Your task to perform on an android device: Open Chrome and go to settings Image 0: 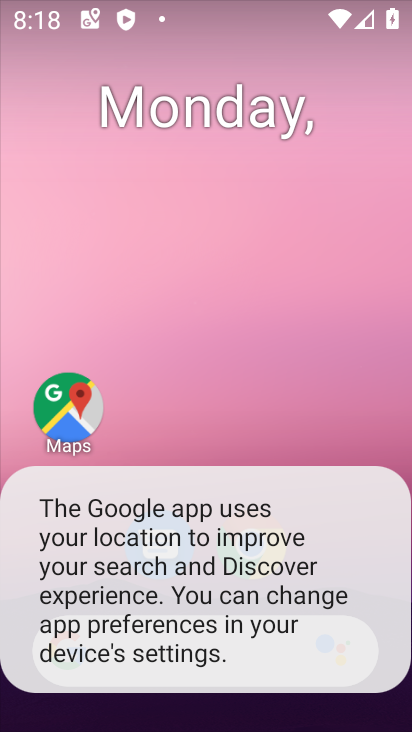
Step 0: click (318, 310)
Your task to perform on an android device: Open Chrome and go to settings Image 1: 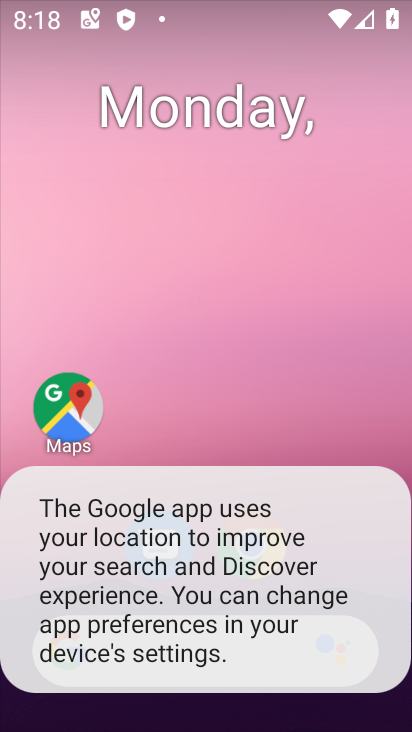
Step 1: drag from (220, 383) to (298, 75)
Your task to perform on an android device: Open Chrome and go to settings Image 2: 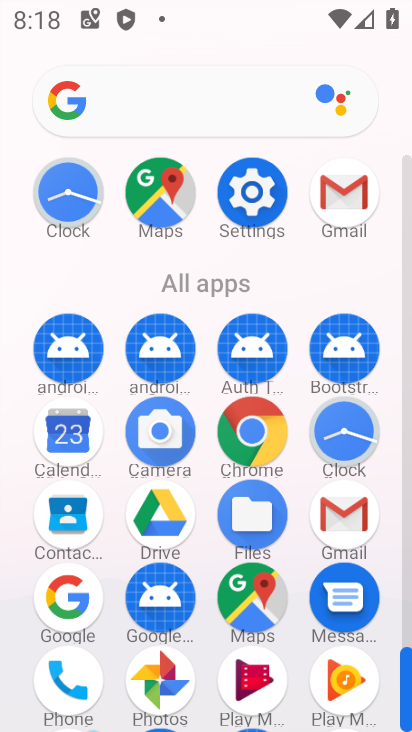
Step 2: click (252, 439)
Your task to perform on an android device: Open Chrome and go to settings Image 3: 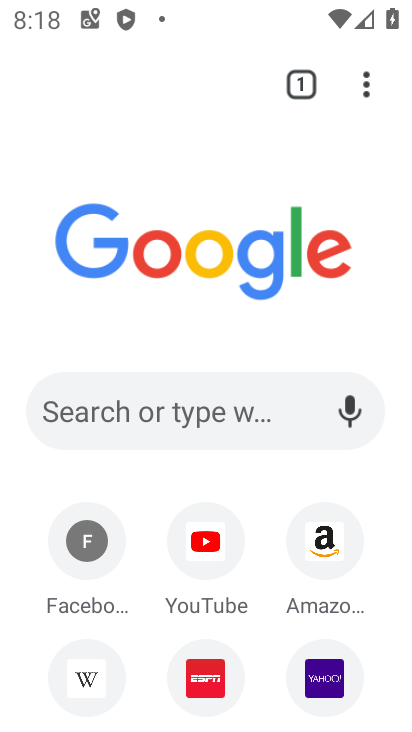
Step 3: click (362, 88)
Your task to perform on an android device: Open Chrome and go to settings Image 4: 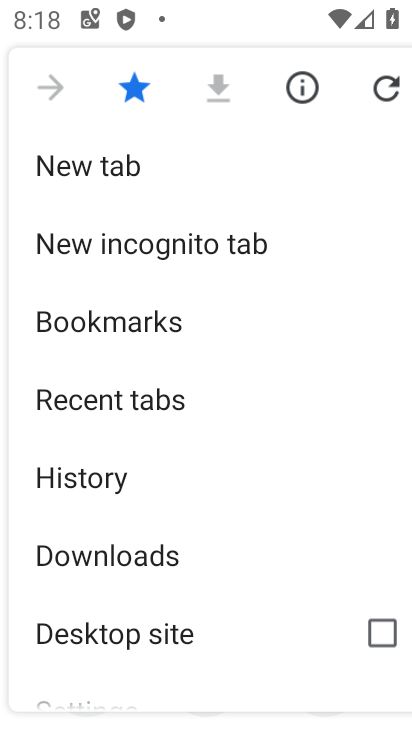
Step 4: drag from (146, 493) to (169, 173)
Your task to perform on an android device: Open Chrome and go to settings Image 5: 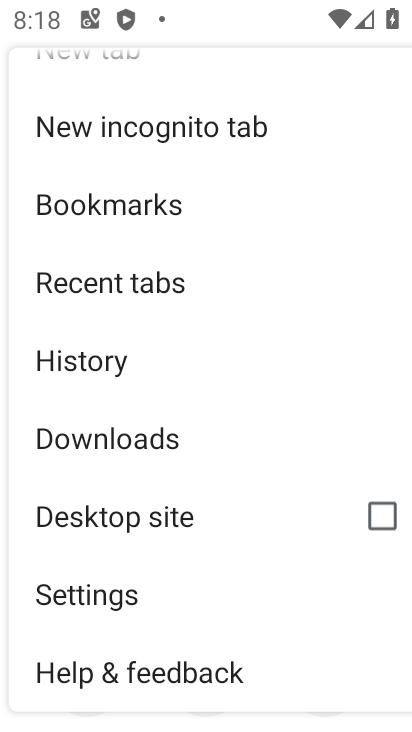
Step 5: click (74, 605)
Your task to perform on an android device: Open Chrome and go to settings Image 6: 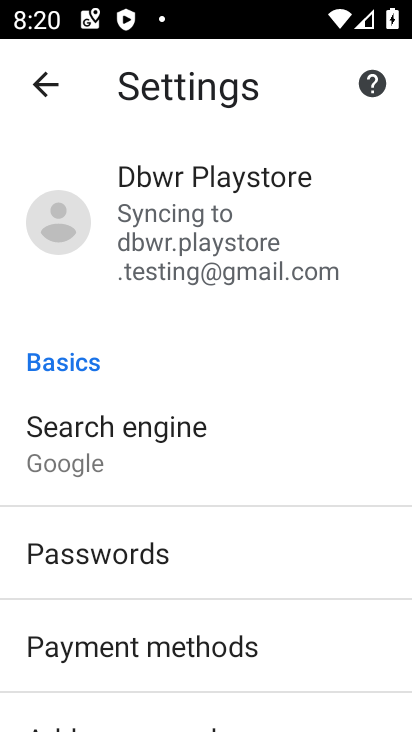
Step 6: task complete